Your task to perform on an android device: Open ESPN.com Image 0: 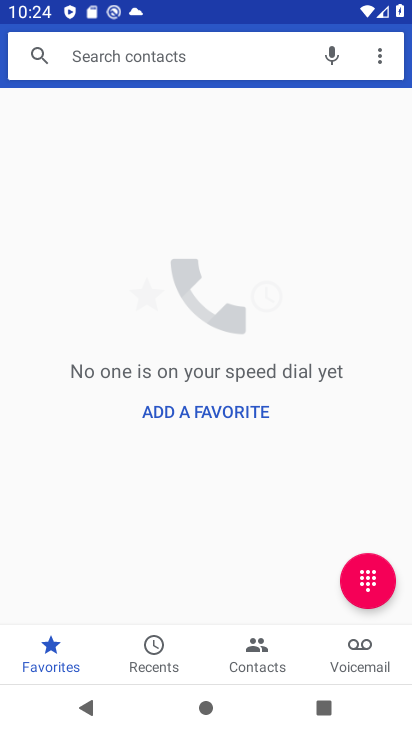
Step 0: press home button
Your task to perform on an android device: Open ESPN.com Image 1: 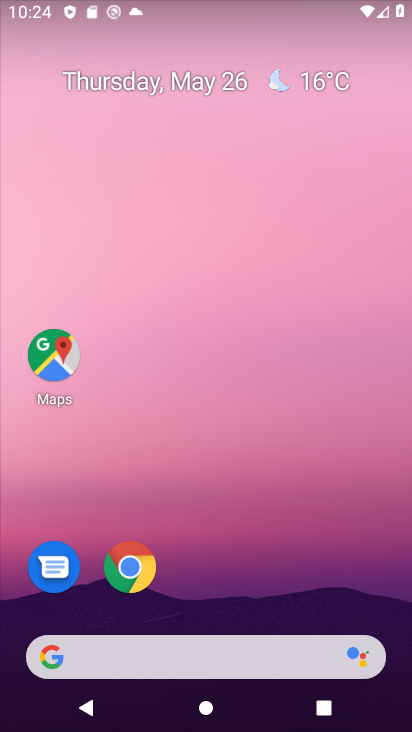
Step 1: click (128, 557)
Your task to perform on an android device: Open ESPN.com Image 2: 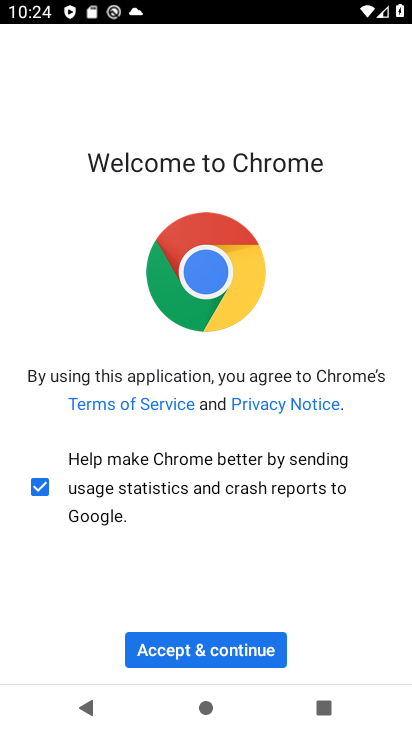
Step 2: click (209, 651)
Your task to perform on an android device: Open ESPN.com Image 3: 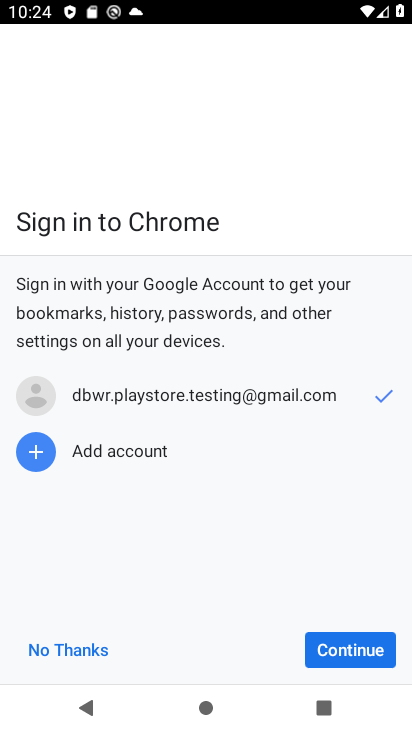
Step 3: click (353, 642)
Your task to perform on an android device: Open ESPN.com Image 4: 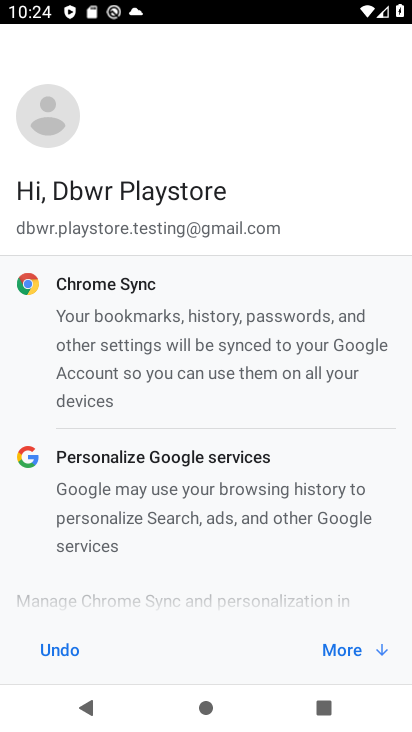
Step 4: click (353, 642)
Your task to perform on an android device: Open ESPN.com Image 5: 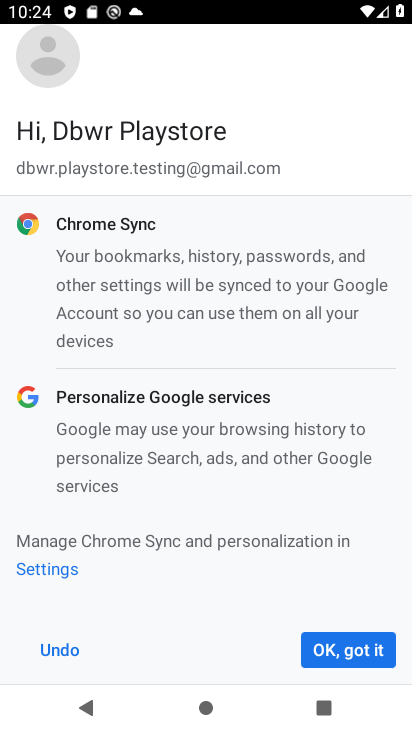
Step 5: click (353, 642)
Your task to perform on an android device: Open ESPN.com Image 6: 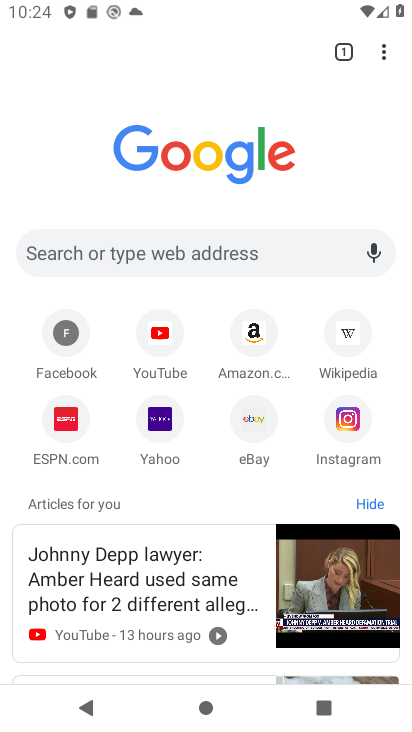
Step 6: click (66, 412)
Your task to perform on an android device: Open ESPN.com Image 7: 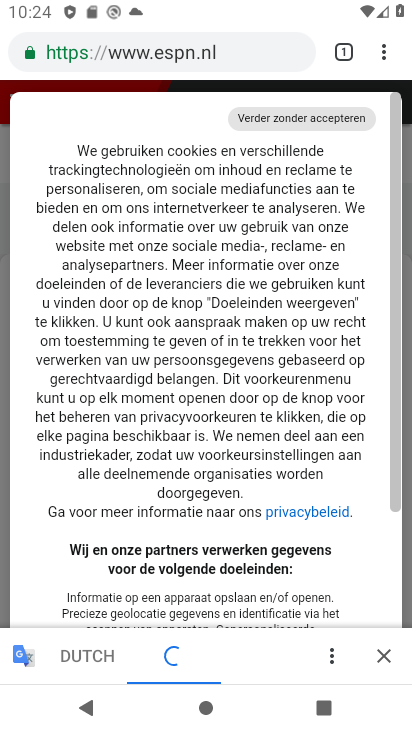
Step 7: drag from (221, 540) to (224, 153)
Your task to perform on an android device: Open ESPN.com Image 8: 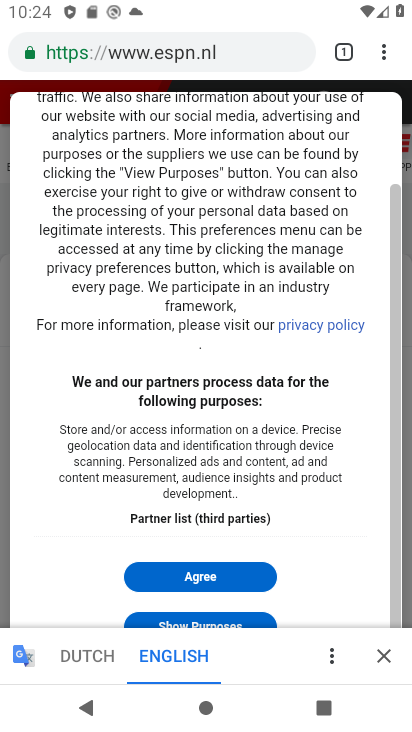
Step 8: click (216, 577)
Your task to perform on an android device: Open ESPN.com Image 9: 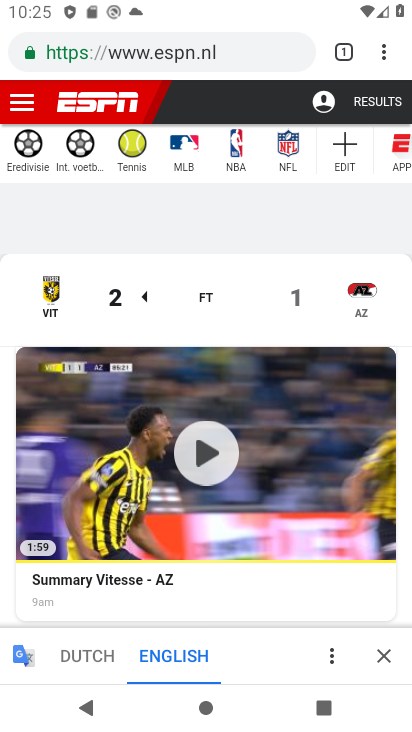
Step 9: click (380, 657)
Your task to perform on an android device: Open ESPN.com Image 10: 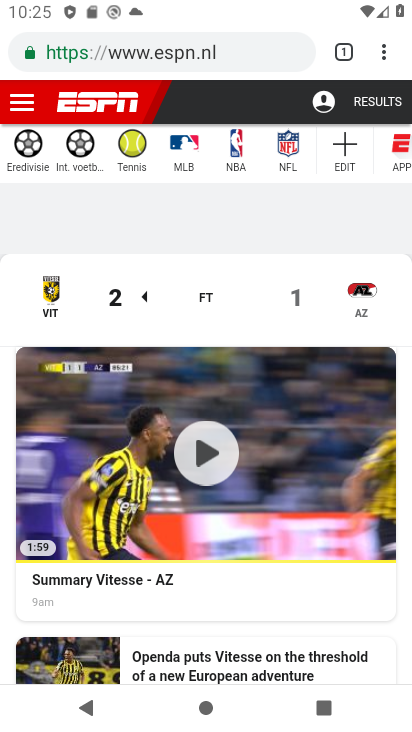
Step 10: task complete